Your task to perform on an android device: turn pop-ups off in chrome Image 0: 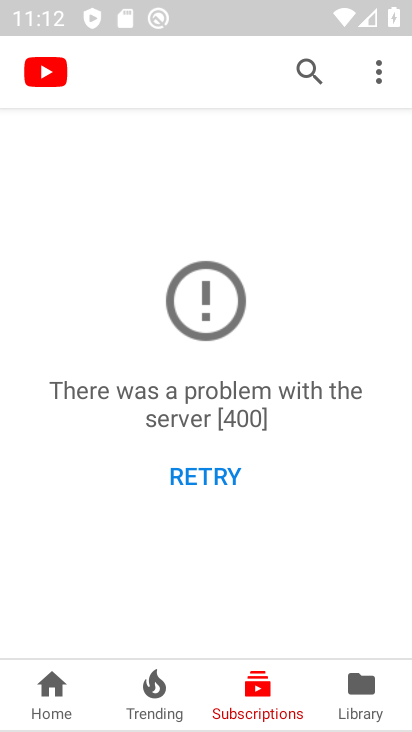
Step 0: press home button
Your task to perform on an android device: turn pop-ups off in chrome Image 1: 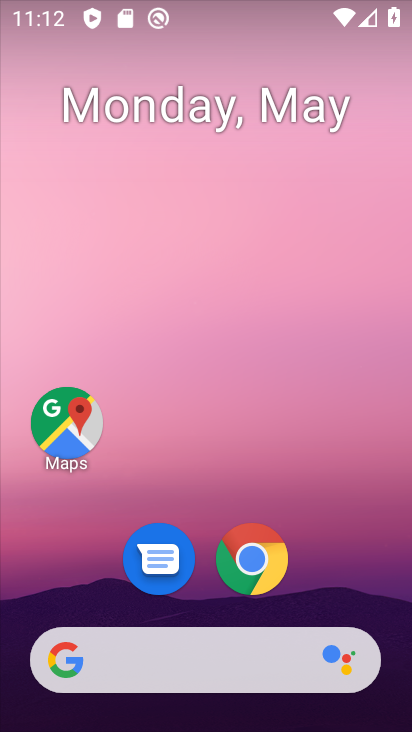
Step 1: click (249, 575)
Your task to perform on an android device: turn pop-ups off in chrome Image 2: 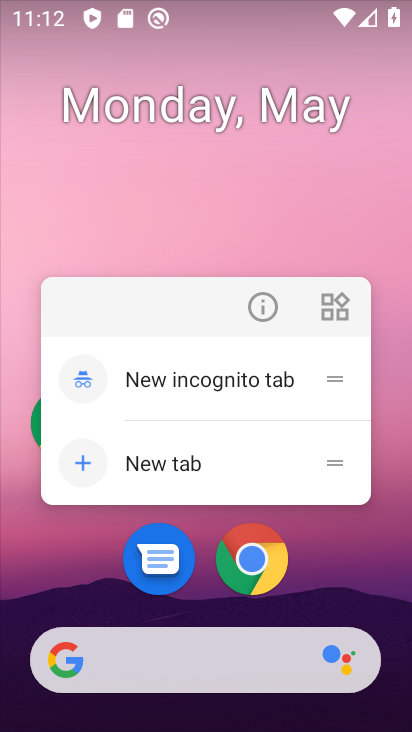
Step 2: click (249, 578)
Your task to perform on an android device: turn pop-ups off in chrome Image 3: 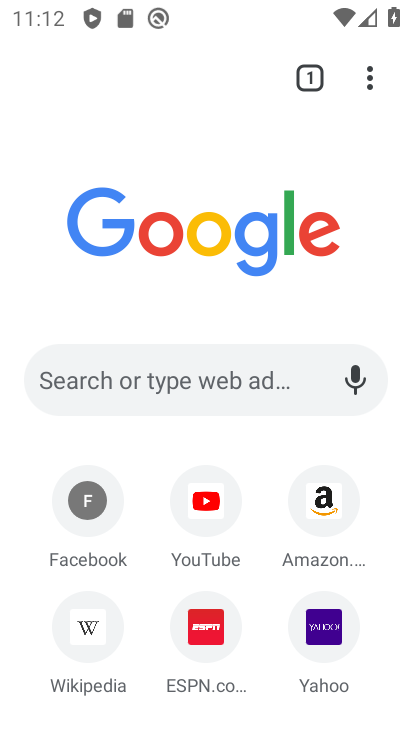
Step 3: drag from (369, 89) to (204, 606)
Your task to perform on an android device: turn pop-ups off in chrome Image 4: 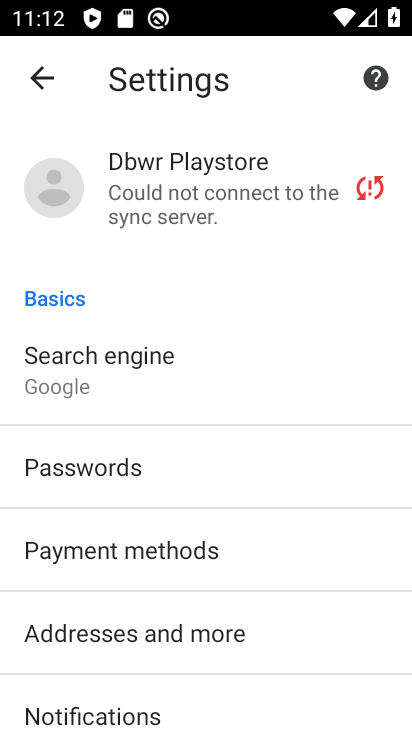
Step 4: drag from (182, 651) to (285, 287)
Your task to perform on an android device: turn pop-ups off in chrome Image 5: 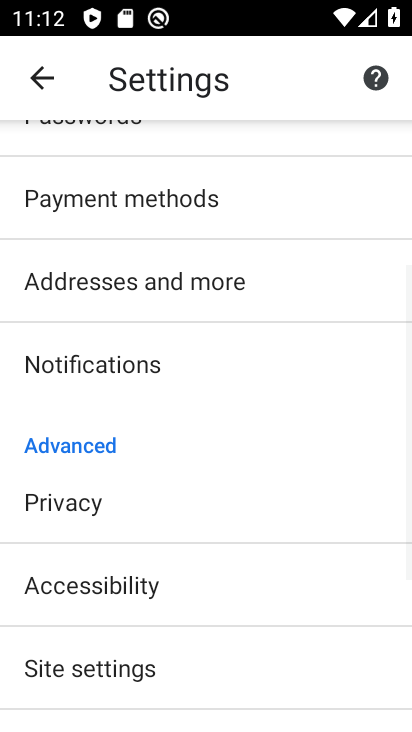
Step 5: click (190, 668)
Your task to perform on an android device: turn pop-ups off in chrome Image 6: 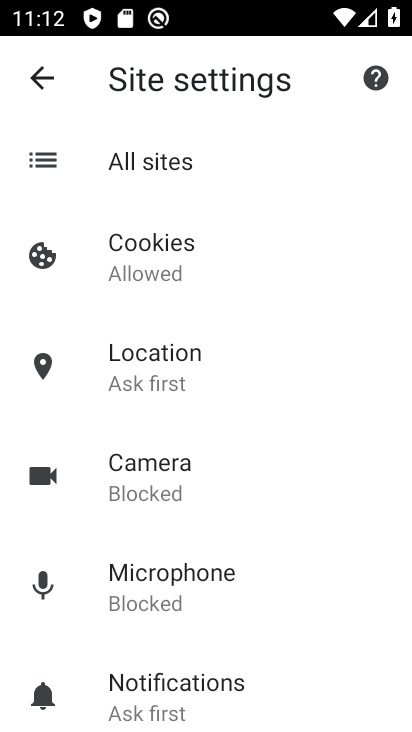
Step 6: drag from (157, 605) to (252, 159)
Your task to perform on an android device: turn pop-ups off in chrome Image 7: 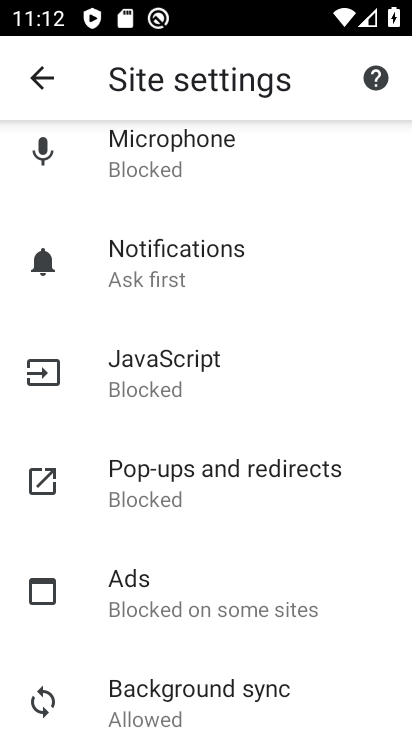
Step 7: click (181, 484)
Your task to perform on an android device: turn pop-ups off in chrome Image 8: 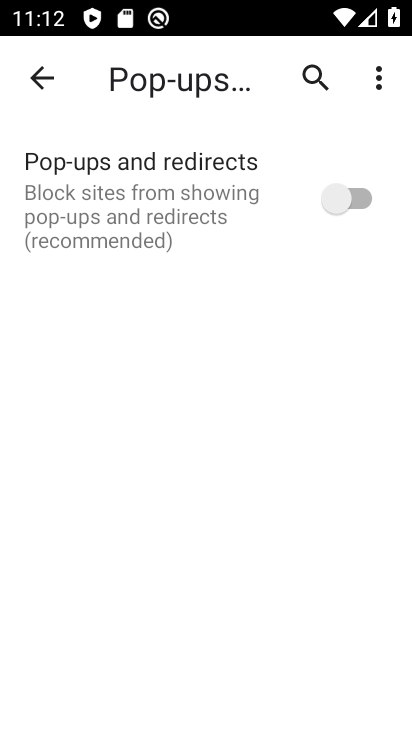
Step 8: task complete